Your task to perform on an android device: Open Google Chrome Image 0: 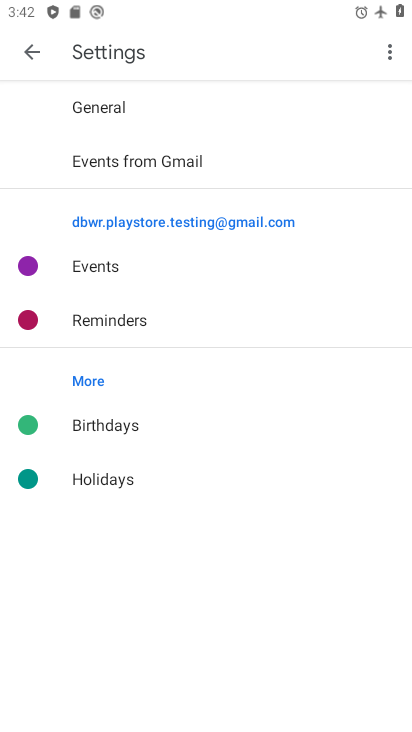
Step 0: press home button
Your task to perform on an android device: Open Google Chrome Image 1: 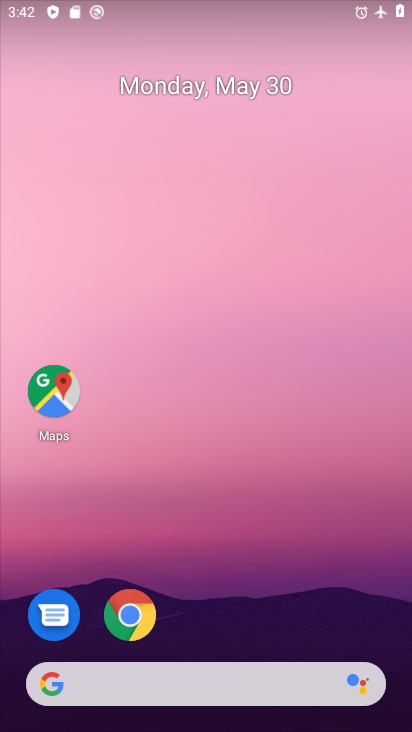
Step 1: click (126, 609)
Your task to perform on an android device: Open Google Chrome Image 2: 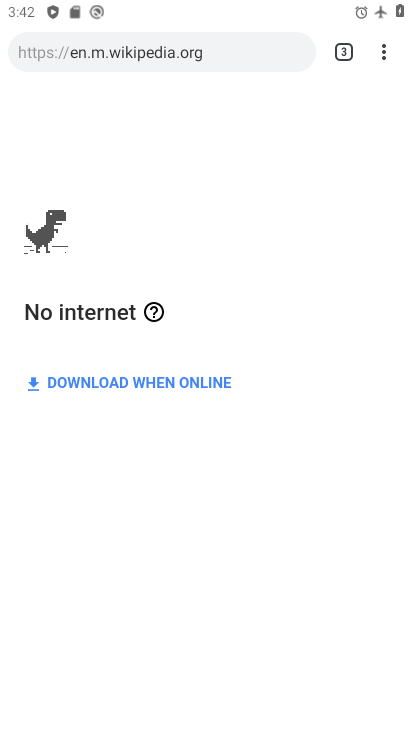
Step 2: click (381, 49)
Your task to perform on an android device: Open Google Chrome Image 3: 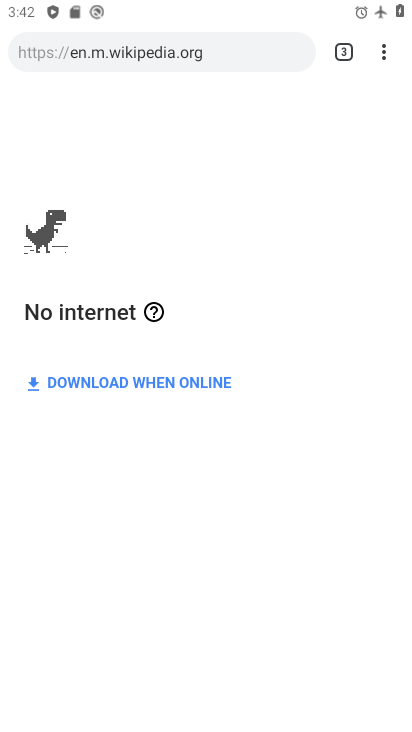
Step 3: click (381, 49)
Your task to perform on an android device: Open Google Chrome Image 4: 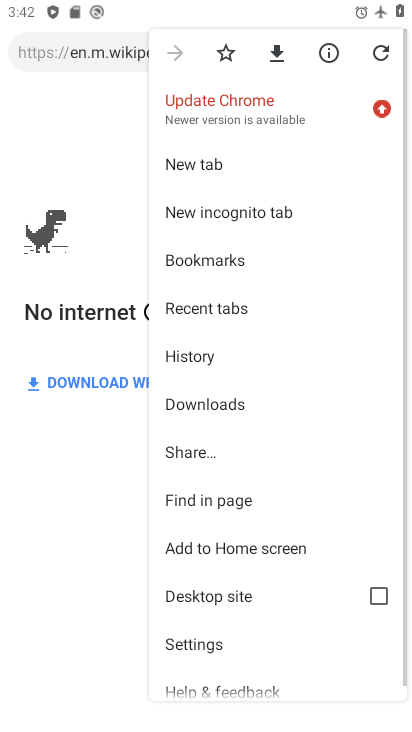
Step 4: click (257, 158)
Your task to perform on an android device: Open Google Chrome Image 5: 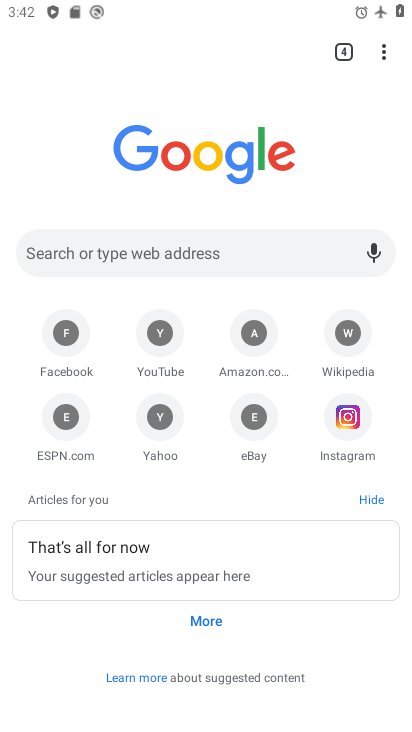
Step 5: task complete